Your task to perform on an android device: turn on the 12-hour format for clock Image 0: 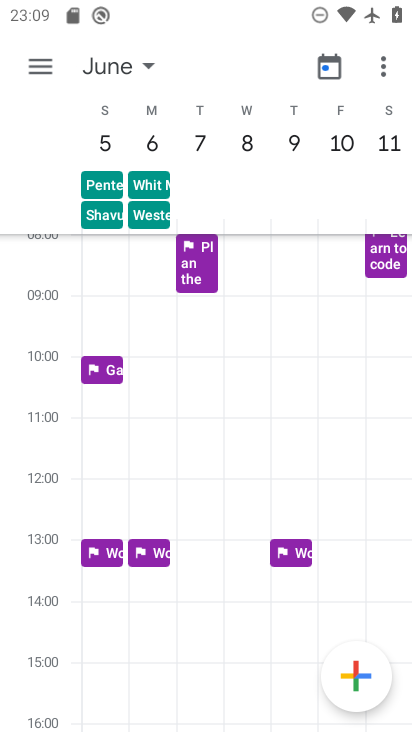
Step 0: press home button
Your task to perform on an android device: turn on the 12-hour format for clock Image 1: 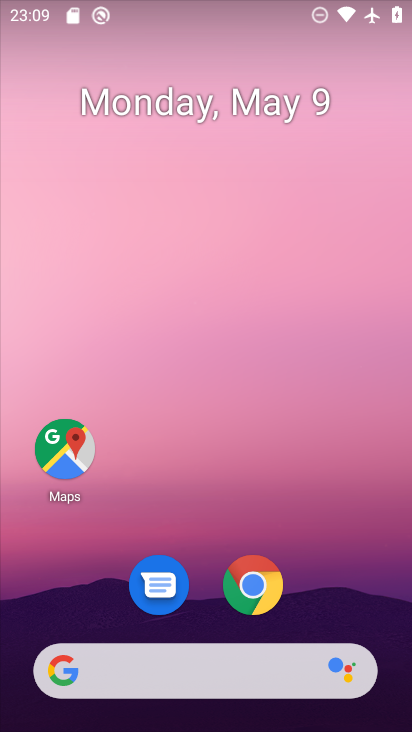
Step 1: drag from (244, 509) to (272, 38)
Your task to perform on an android device: turn on the 12-hour format for clock Image 2: 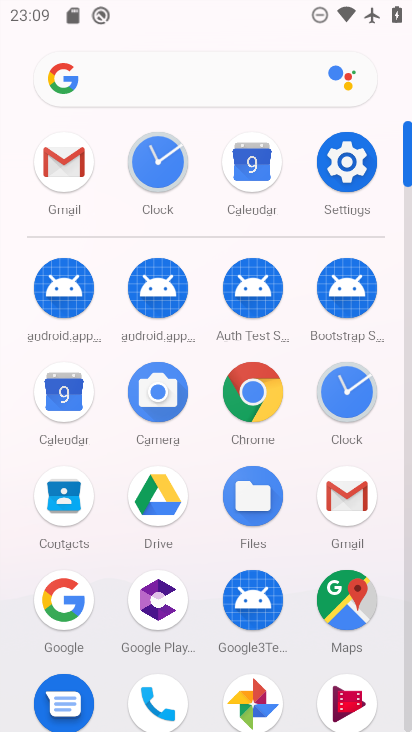
Step 2: click (162, 173)
Your task to perform on an android device: turn on the 12-hour format for clock Image 3: 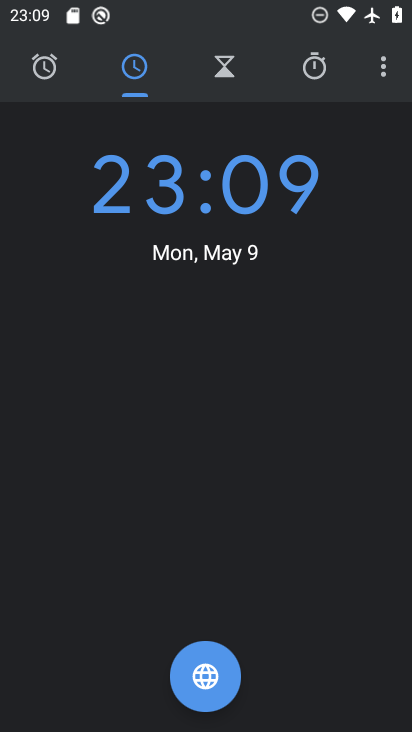
Step 3: click (382, 63)
Your task to perform on an android device: turn on the 12-hour format for clock Image 4: 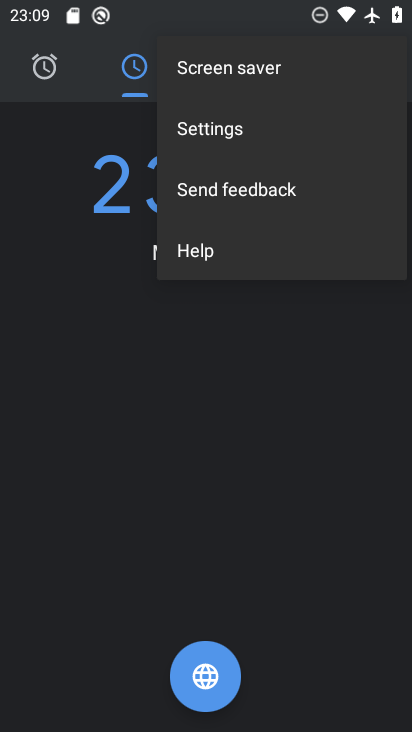
Step 4: click (278, 133)
Your task to perform on an android device: turn on the 12-hour format for clock Image 5: 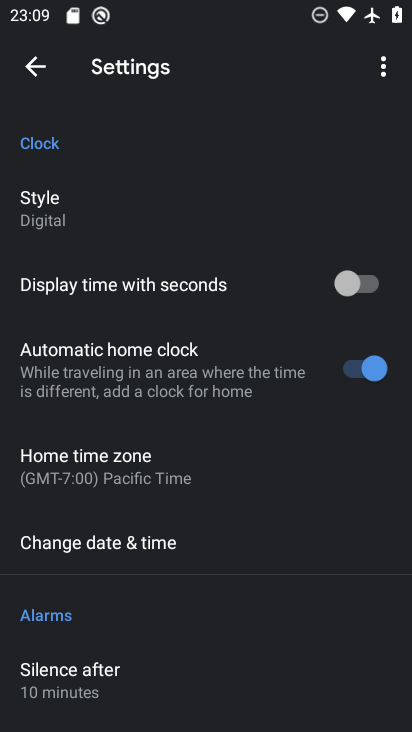
Step 5: click (219, 540)
Your task to perform on an android device: turn on the 12-hour format for clock Image 6: 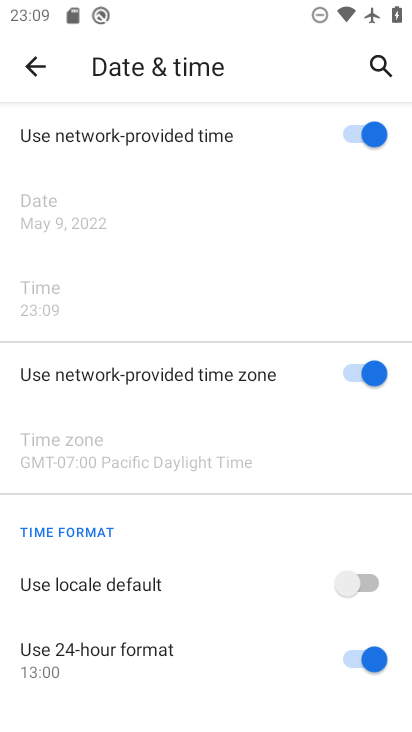
Step 6: click (353, 657)
Your task to perform on an android device: turn on the 12-hour format for clock Image 7: 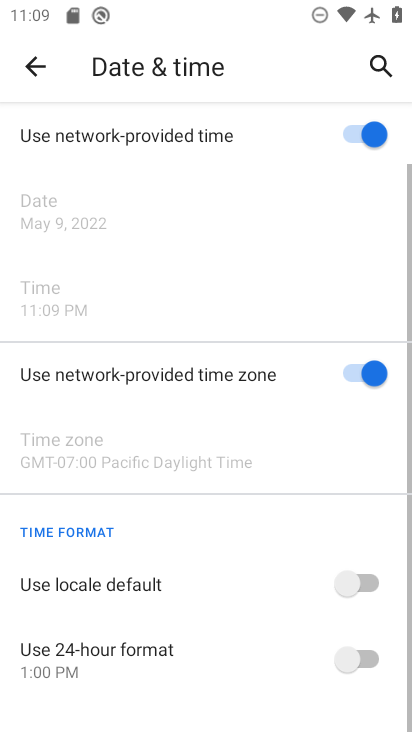
Step 7: click (371, 574)
Your task to perform on an android device: turn on the 12-hour format for clock Image 8: 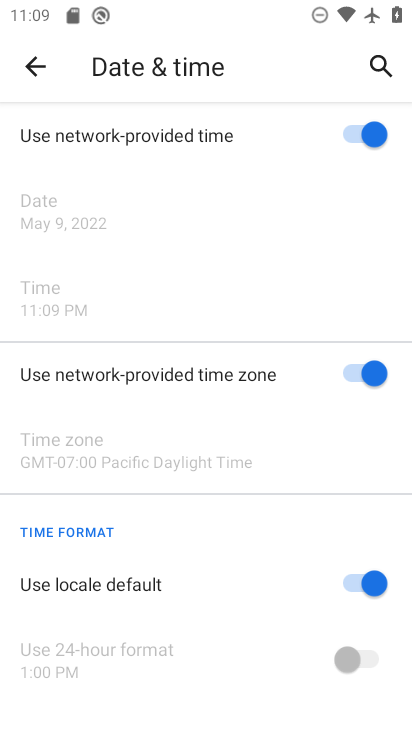
Step 8: task complete